Your task to perform on an android device: Set the phone to "Do not disturb". Image 0: 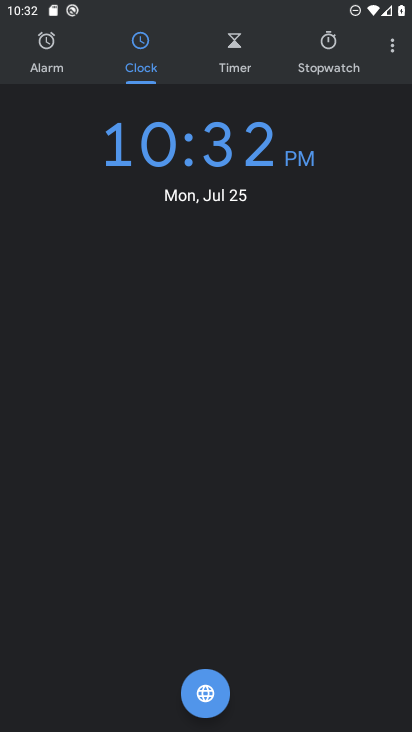
Step 0: press home button
Your task to perform on an android device: Set the phone to "Do not disturb". Image 1: 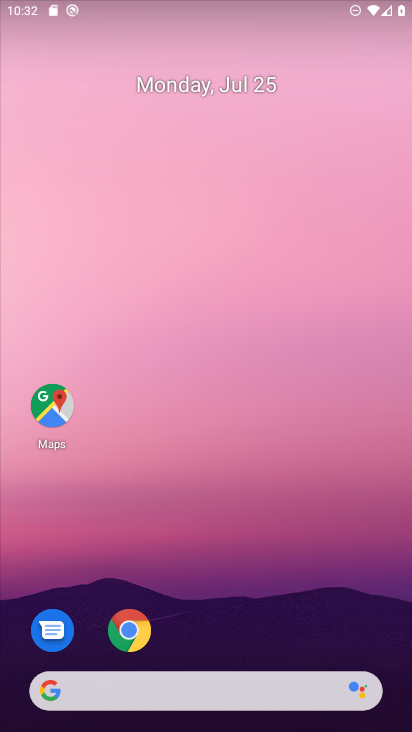
Step 1: task complete